Your task to perform on an android device: see sites visited before in the chrome app Image 0: 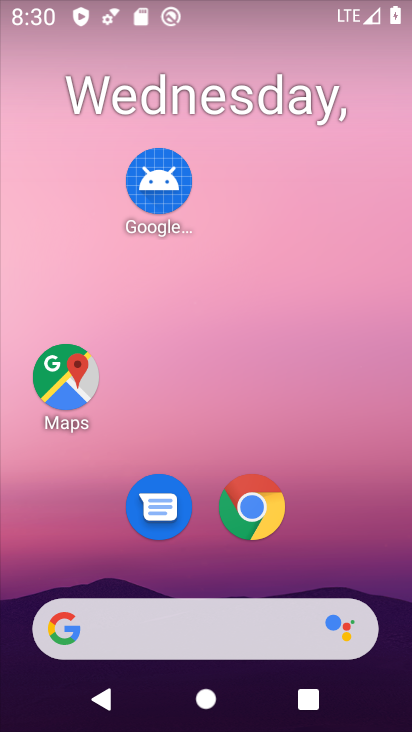
Step 0: drag from (215, 565) to (405, 33)
Your task to perform on an android device: see sites visited before in the chrome app Image 1: 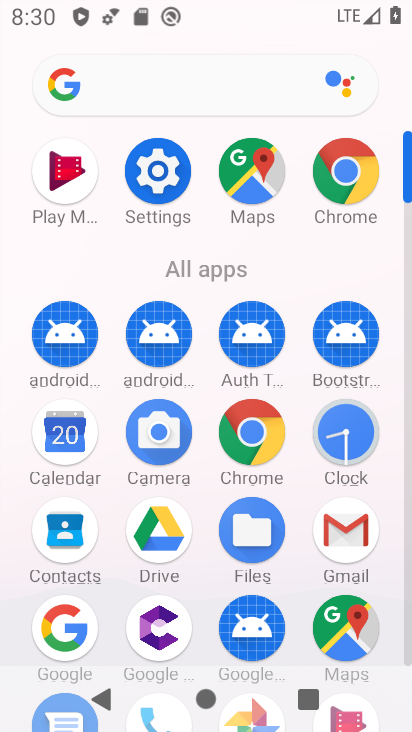
Step 1: click (348, 174)
Your task to perform on an android device: see sites visited before in the chrome app Image 2: 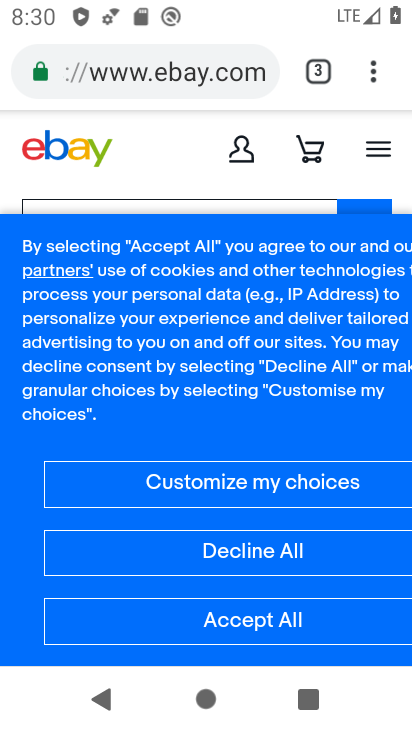
Step 2: task complete